Your task to perform on an android device: turn on notifications settings in the gmail app Image 0: 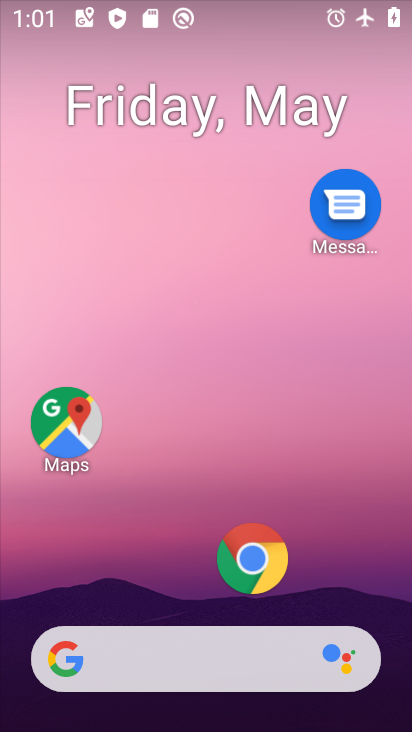
Step 0: drag from (172, 572) to (189, 123)
Your task to perform on an android device: turn on notifications settings in the gmail app Image 1: 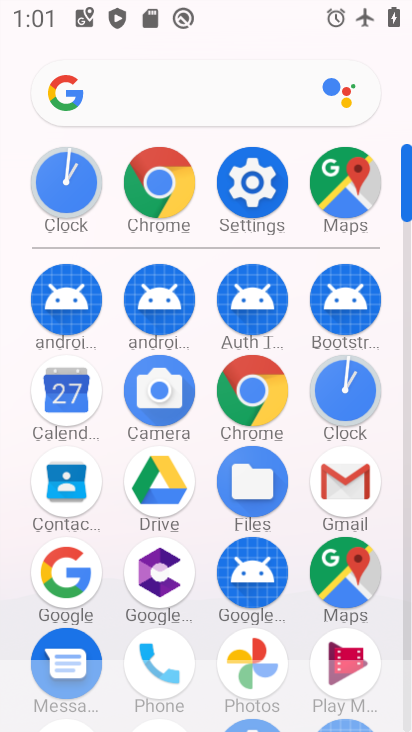
Step 1: click (359, 483)
Your task to perform on an android device: turn on notifications settings in the gmail app Image 2: 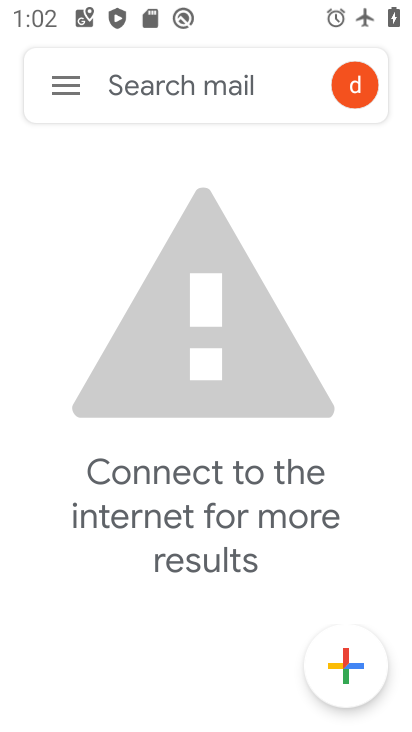
Step 2: click (79, 88)
Your task to perform on an android device: turn on notifications settings in the gmail app Image 3: 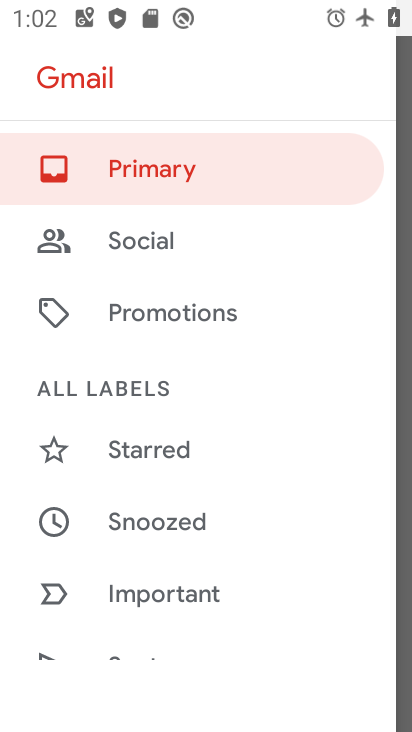
Step 3: drag from (157, 549) to (166, 211)
Your task to perform on an android device: turn on notifications settings in the gmail app Image 4: 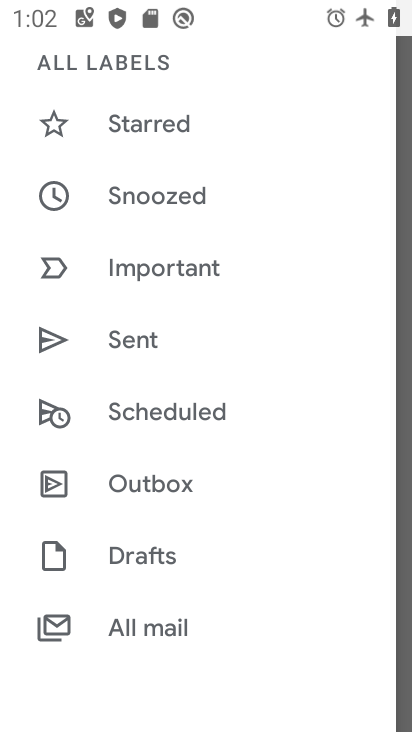
Step 4: drag from (188, 526) to (188, 270)
Your task to perform on an android device: turn on notifications settings in the gmail app Image 5: 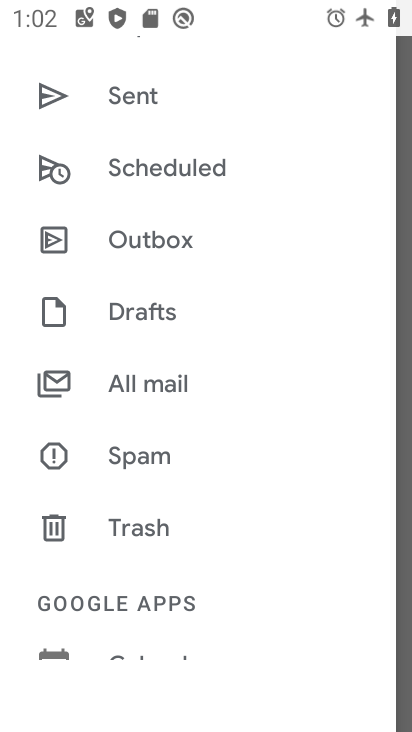
Step 5: drag from (169, 550) to (158, 254)
Your task to perform on an android device: turn on notifications settings in the gmail app Image 6: 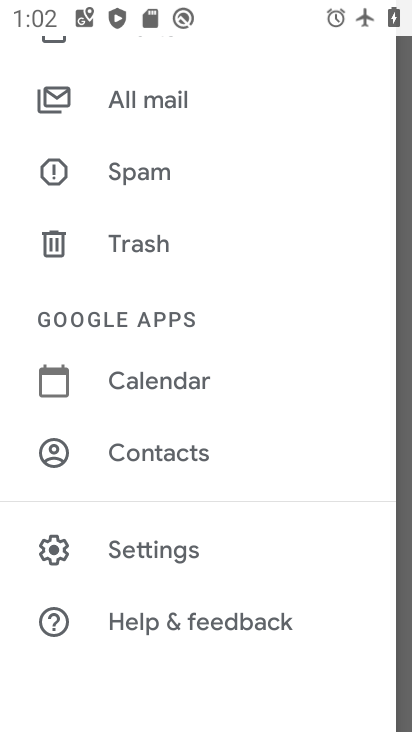
Step 6: drag from (139, 533) to (169, 258)
Your task to perform on an android device: turn on notifications settings in the gmail app Image 7: 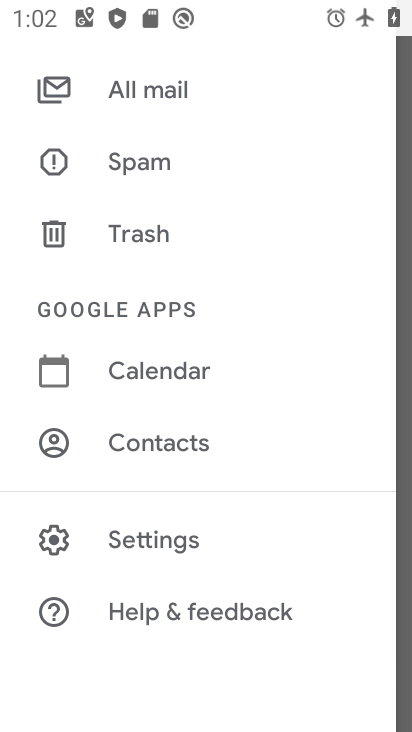
Step 7: click (189, 523)
Your task to perform on an android device: turn on notifications settings in the gmail app Image 8: 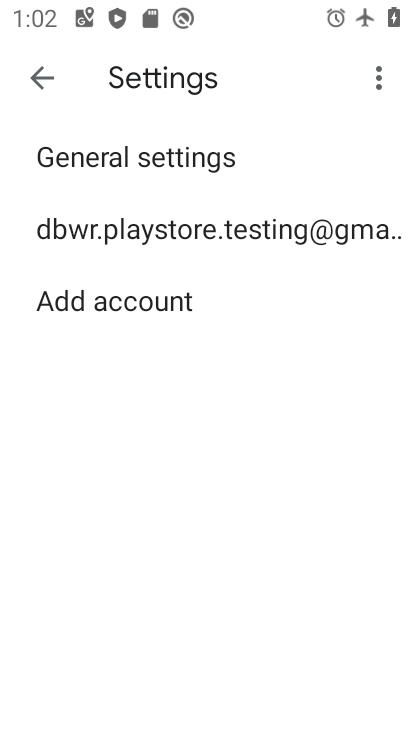
Step 8: click (181, 160)
Your task to perform on an android device: turn on notifications settings in the gmail app Image 9: 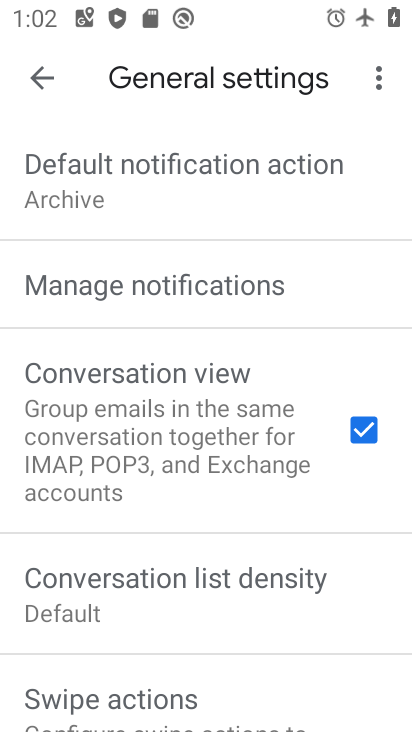
Step 9: click (209, 266)
Your task to perform on an android device: turn on notifications settings in the gmail app Image 10: 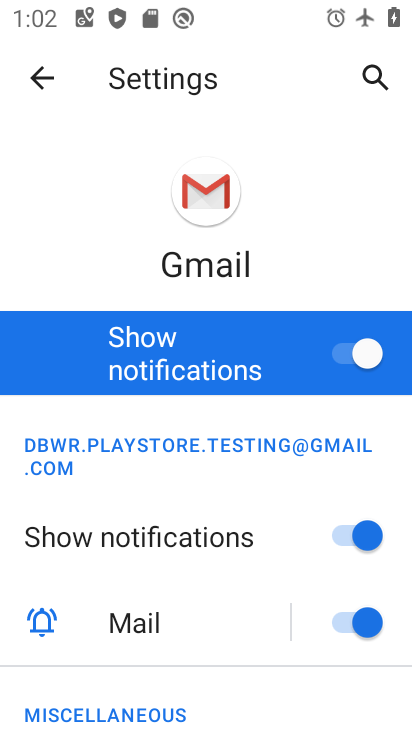
Step 10: task complete